Your task to perform on an android device: open chrome privacy settings Image 0: 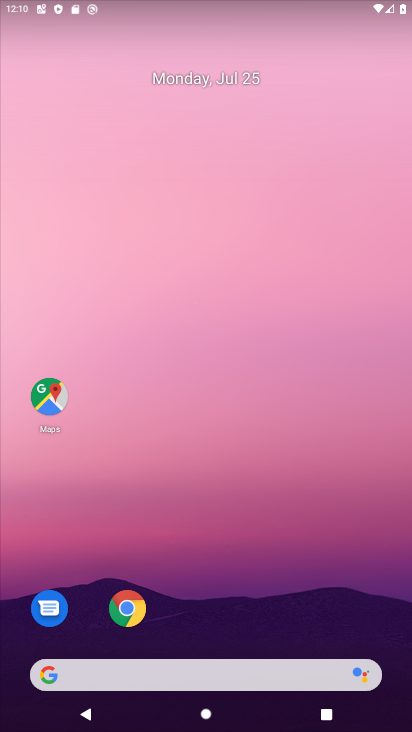
Step 0: click (132, 617)
Your task to perform on an android device: open chrome privacy settings Image 1: 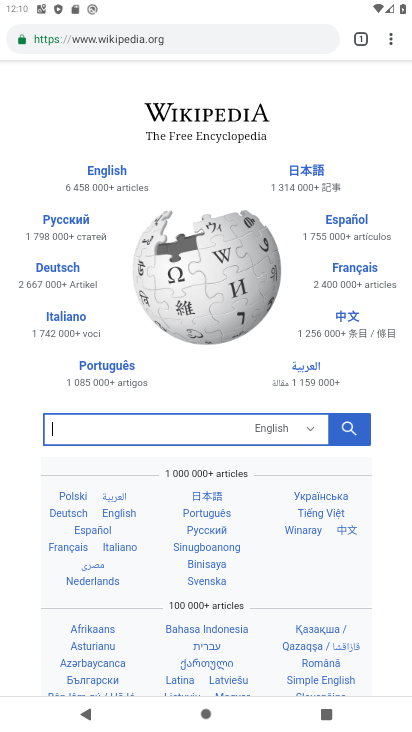
Step 1: click (392, 40)
Your task to perform on an android device: open chrome privacy settings Image 2: 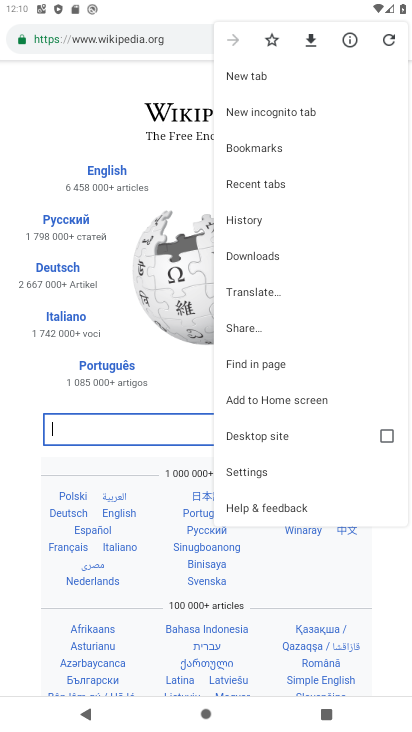
Step 2: click (249, 479)
Your task to perform on an android device: open chrome privacy settings Image 3: 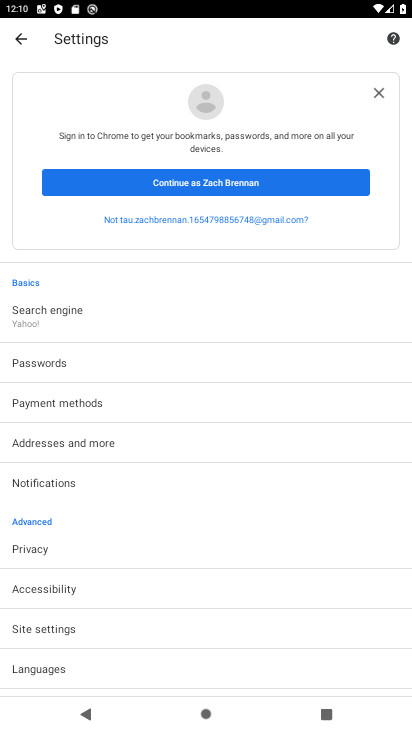
Step 3: click (40, 547)
Your task to perform on an android device: open chrome privacy settings Image 4: 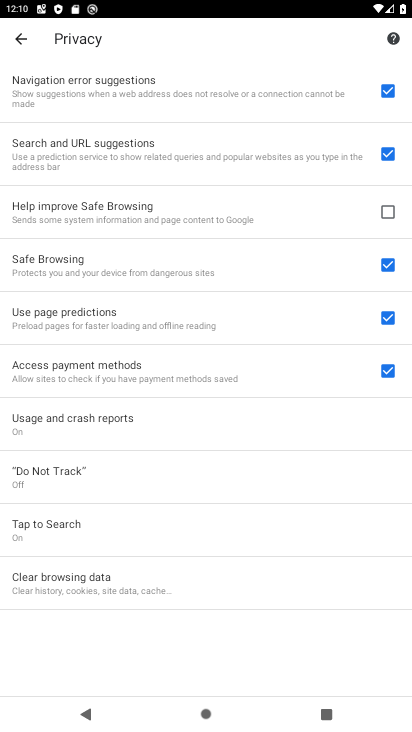
Step 4: task complete